Your task to perform on an android device: find snoozed emails in the gmail app Image 0: 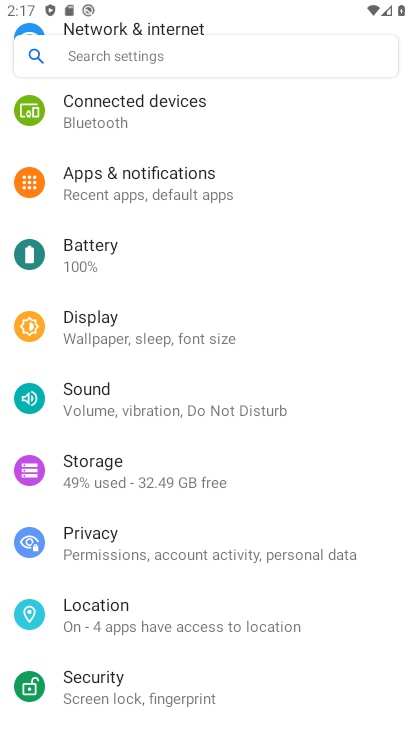
Step 0: press home button
Your task to perform on an android device: find snoozed emails in the gmail app Image 1: 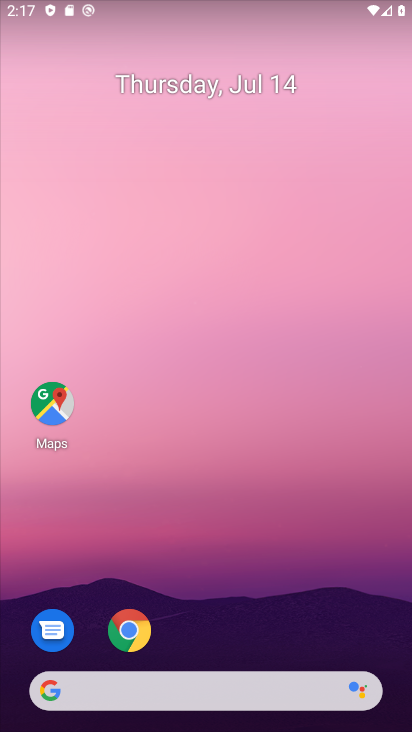
Step 1: drag from (217, 634) to (251, 33)
Your task to perform on an android device: find snoozed emails in the gmail app Image 2: 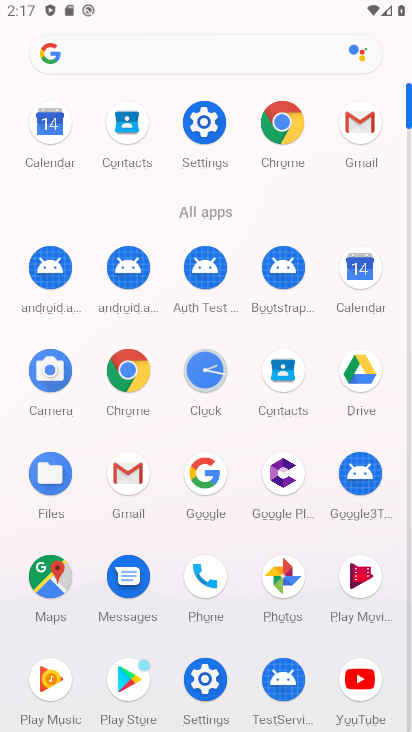
Step 2: click (125, 468)
Your task to perform on an android device: find snoozed emails in the gmail app Image 3: 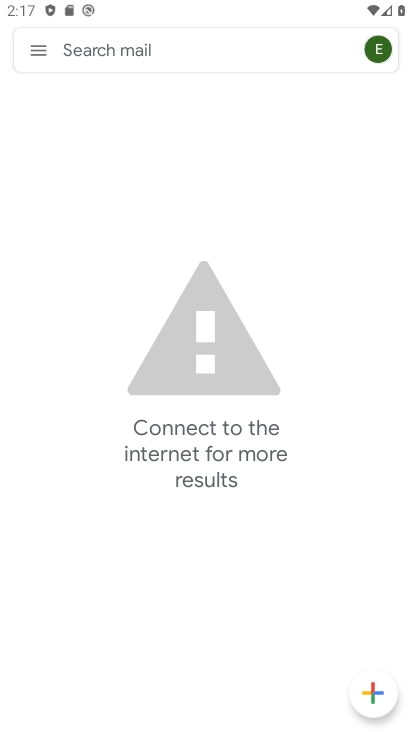
Step 3: click (31, 47)
Your task to perform on an android device: find snoozed emails in the gmail app Image 4: 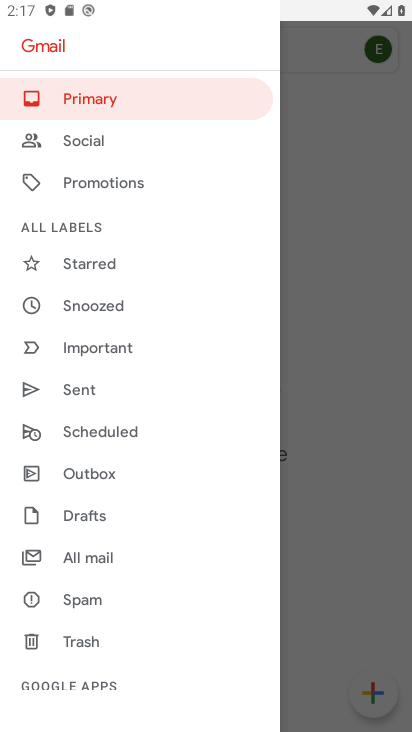
Step 4: click (120, 304)
Your task to perform on an android device: find snoozed emails in the gmail app Image 5: 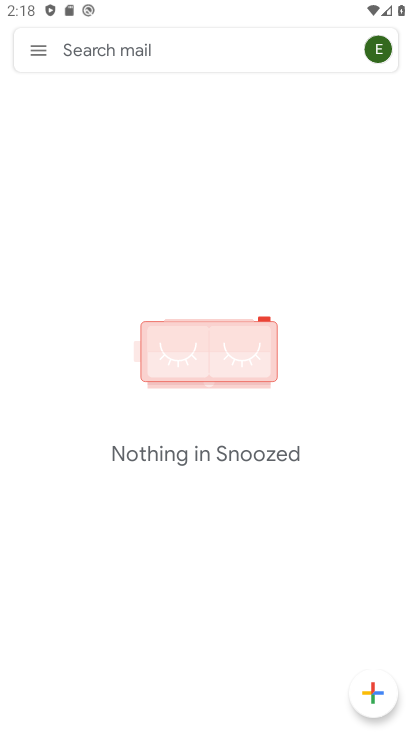
Step 5: task complete